Your task to perform on an android device: Open privacy settings Image 0: 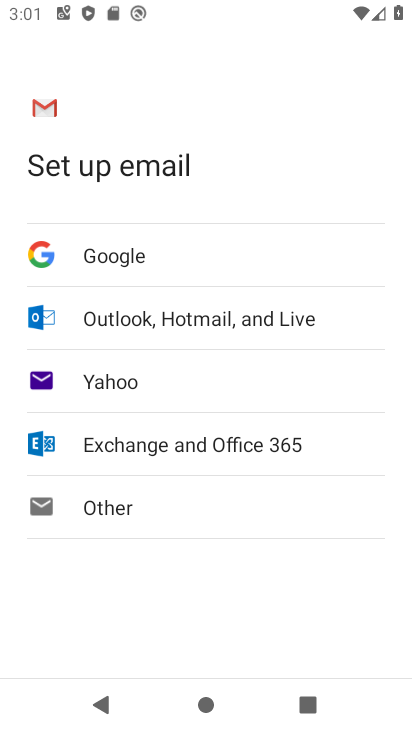
Step 0: press home button
Your task to perform on an android device: Open privacy settings Image 1: 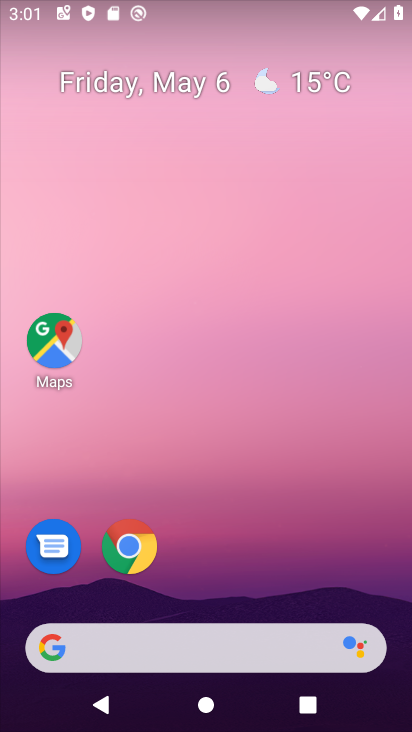
Step 1: drag from (220, 620) to (247, 183)
Your task to perform on an android device: Open privacy settings Image 2: 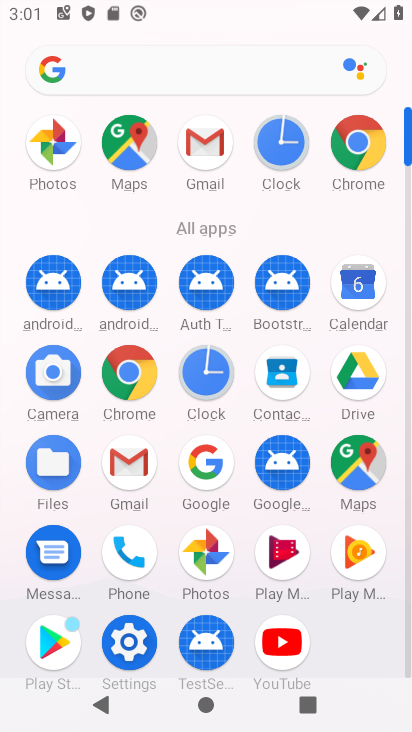
Step 2: drag from (99, 623) to (119, 255)
Your task to perform on an android device: Open privacy settings Image 3: 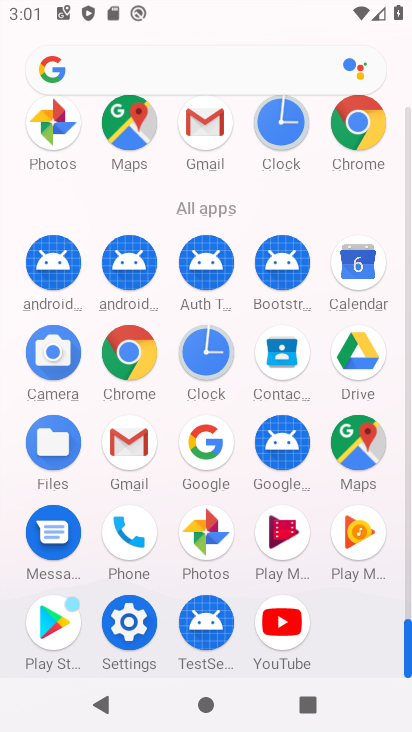
Step 3: click (118, 620)
Your task to perform on an android device: Open privacy settings Image 4: 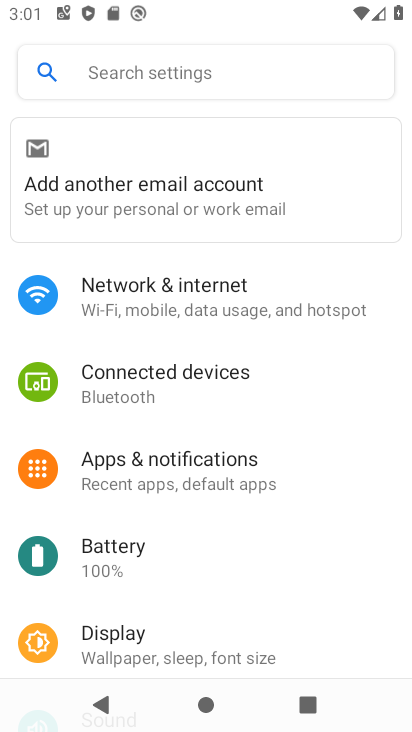
Step 4: drag from (192, 646) to (206, 324)
Your task to perform on an android device: Open privacy settings Image 5: 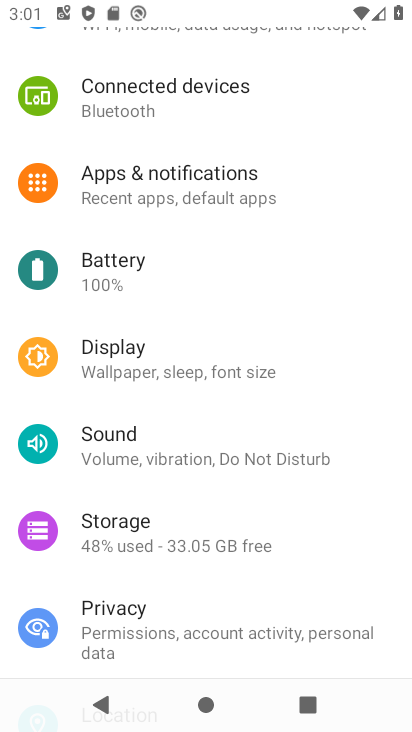
Step 5: click (156, 629)
Your task to perform on an android device: Open privacy settings Image 6: 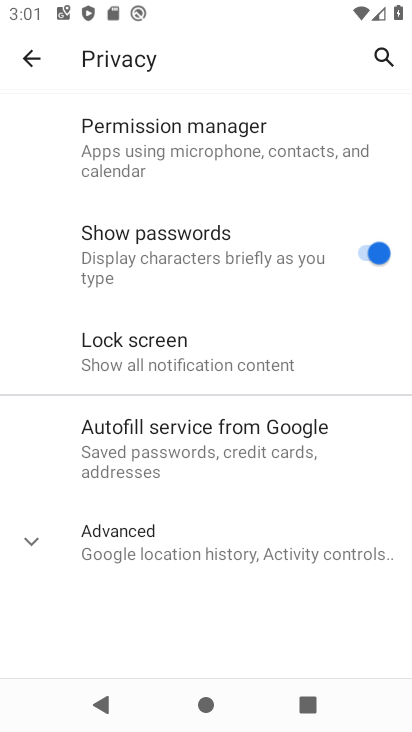
Step 6: click (135, 539)
Your task to perform on an android device: Open privacy settings Image 7: 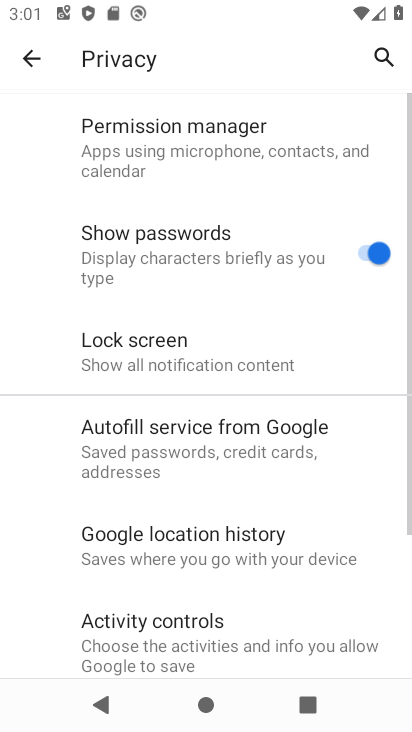
Step 7: task complete